Your task to perform on an android device: Add "alienware area 51" to the cart on newegg, then select checkout. Image 0: 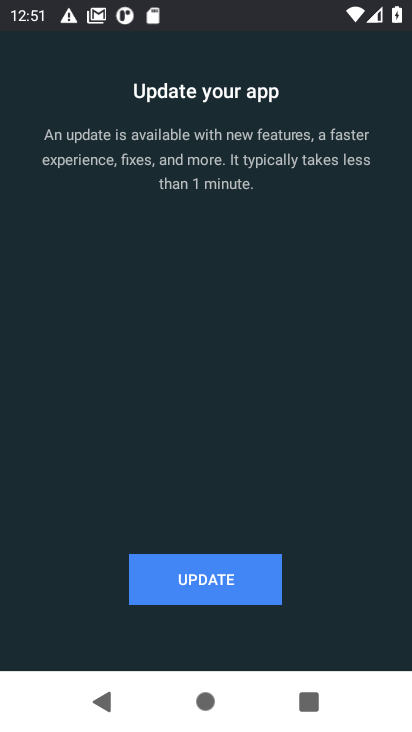
Step 0: press home button
Your task to perform on an android device: Add "alienware area 51" to the cart on newegg, then select checkout. Image 1: 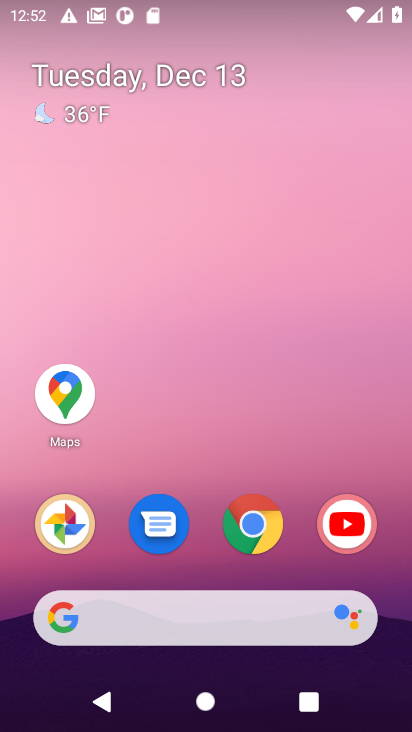
Step 1: click (272, 529)
Your task to perform on an android device: Add "alienware area 51" to the cart on newegg, then select checkout. Image 2: 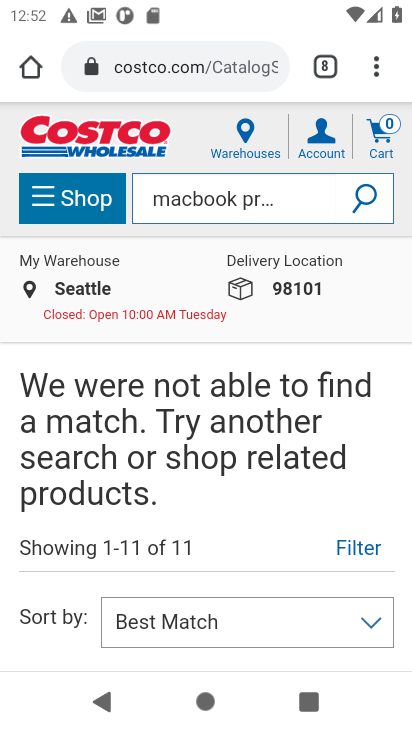
Step 2: click (168, 72)
Your task to perform on an android device: Add "alienware area 51" to the cart on newegg, then select checkout. Image 3: 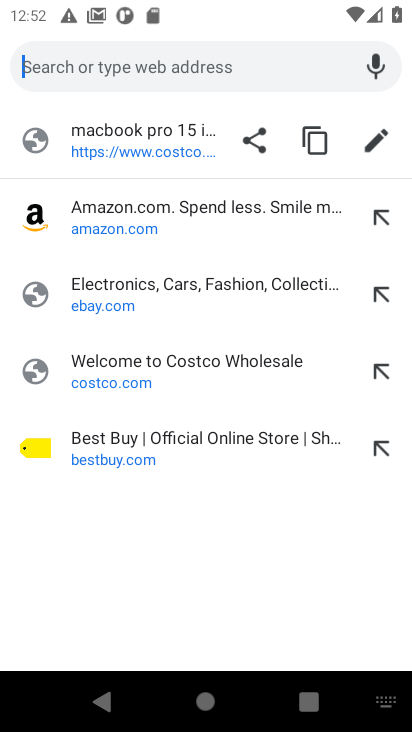
Step 3: type "newegg.com"
Your task to perform on an android device: Add "alienware area 51" to the cart on newegg, then select checkout. Image 4: 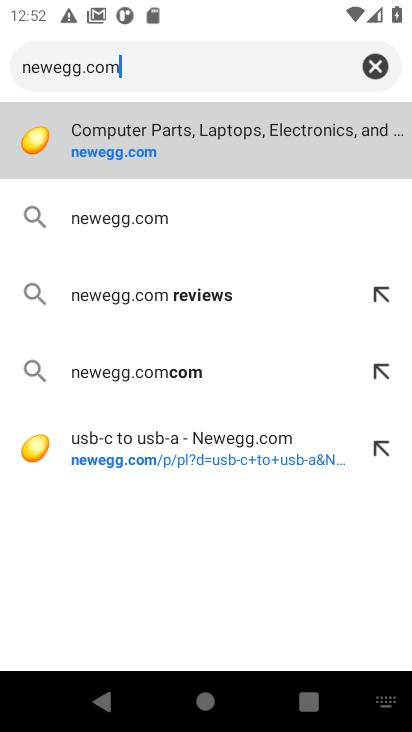
Step 4: click (122, 151)
Your task to perform on an android device: Add "alienware area 51" to the cart on newegg, then select checkout. Image 5: 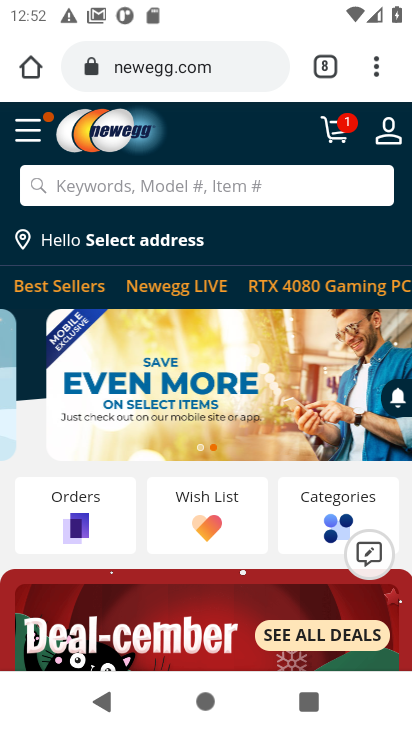
Step 5: click (72, 181)
Your task to perform on an android device: Add "alienware area 51" to the cart on newegg, then select checkout. Image 6: 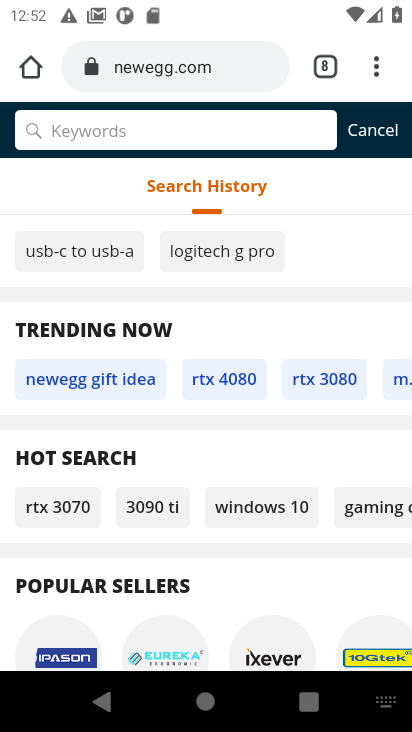
Step 6: type "alienware area 51"
Your task to perform on an android device: Add "alienware area 51" to the cart on newegg, then select checkout. Image 7: 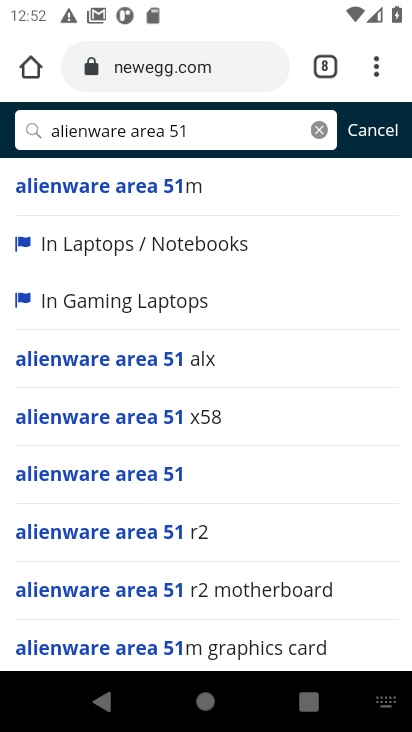
Step 7: click (112, 478)
Your task to perform on an android device: Add "alienware area 51" to the cart on newegg, then select checkout. Image 8: 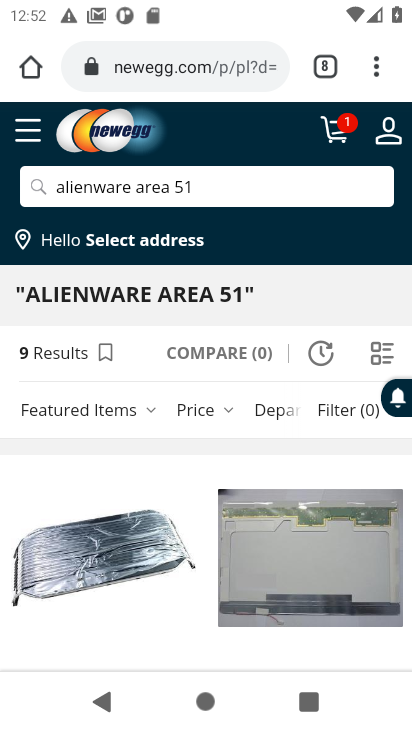
Step 8: drag from (112, 486) to (115, 253)
Your task to perform on an android device: Add "alienware area 51" to the cart on newegg, then select checkout. Image 9: 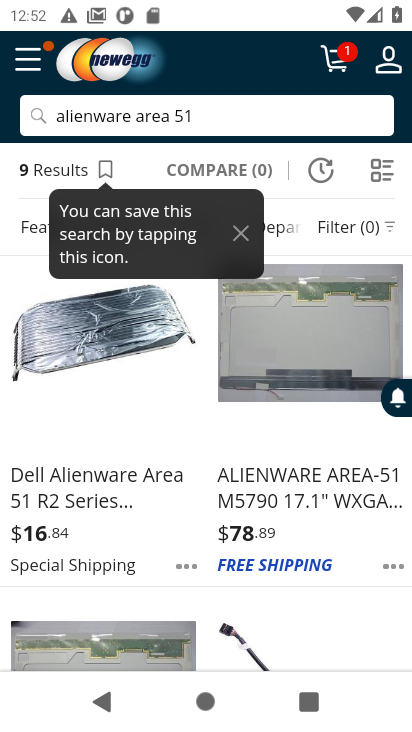
Step 9: click (71, 481)
Your task to perform on an android device: Add "alienware area 51" to the cart on newegg, then select checkout. Image 10: 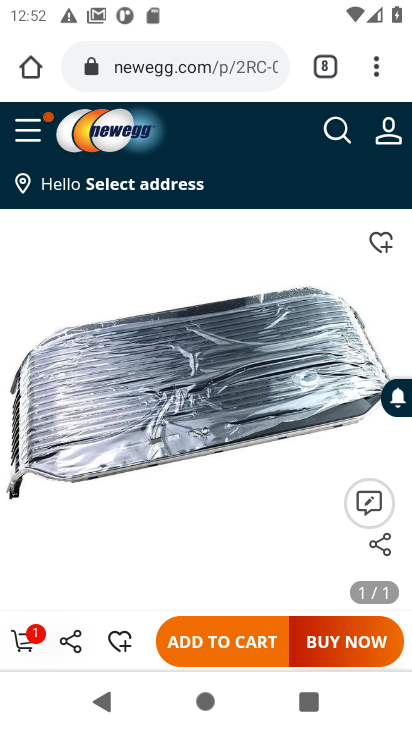
Step 10: drag from (82, 496) to (101, 196)
Your task to perform on an android device: Add "alienware area 51" to the cart on newegg, then select checkout. Image 11: 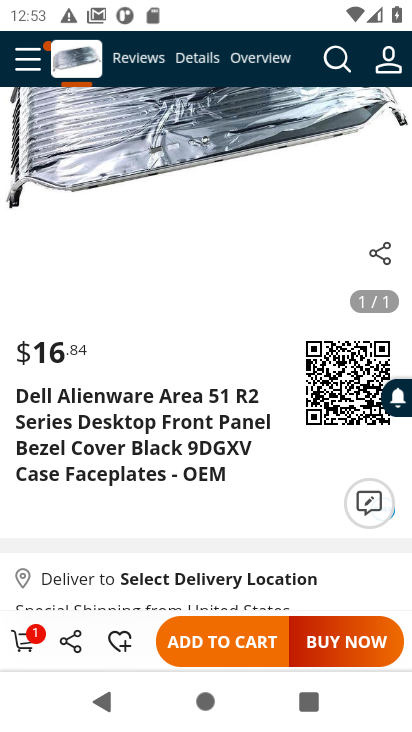
Step 11: click (199, 646)
Your task to perform on an android device: Add "alienware area 51" to the cart on newegg, then select checkout. Image 12: 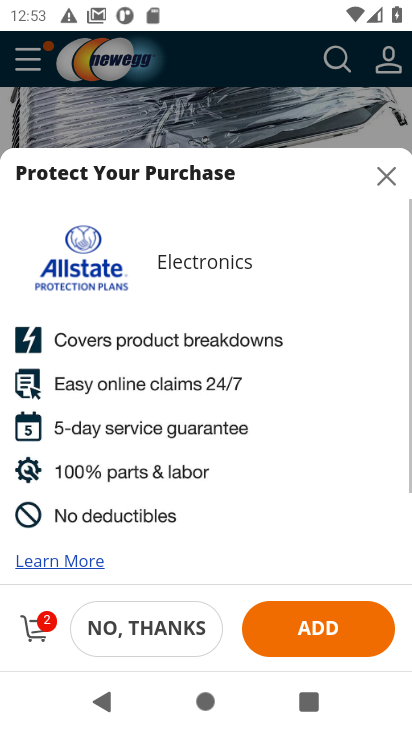
Step 12: click (28, 630)
Your task to perform on an android device: Add "alienware area 51" to the cart on newegg, then select checkout. Image 13: 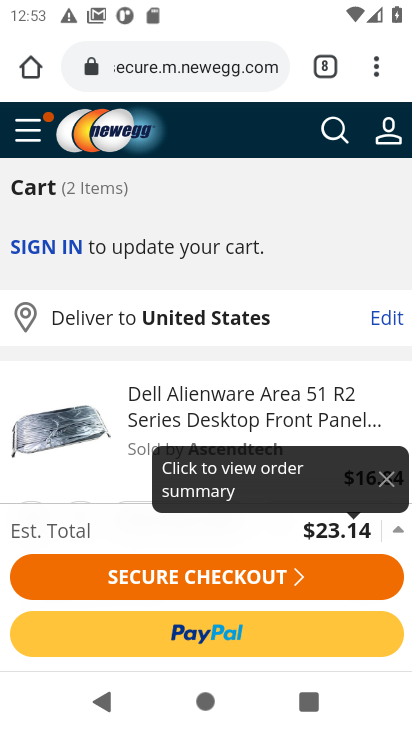
Step 13: click (124, 582)
Your task to perform on an android device: Add "alienware area 51" to the cart on newegg, then select checkout. Image 14: 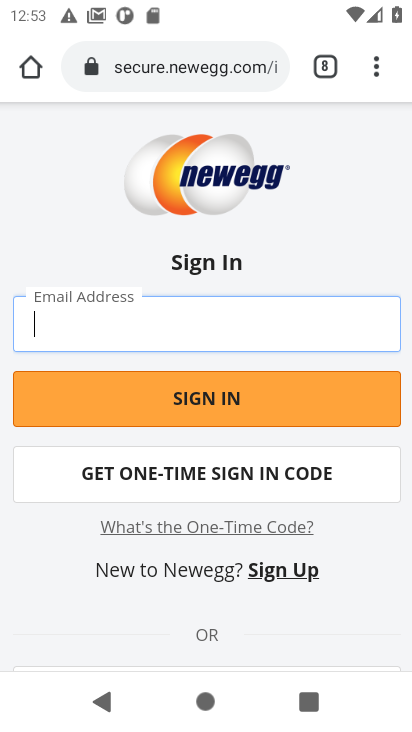
Step 14: task complete